Your task to perform on an android device: Open Youtube and go to "Your channel" Image 0: 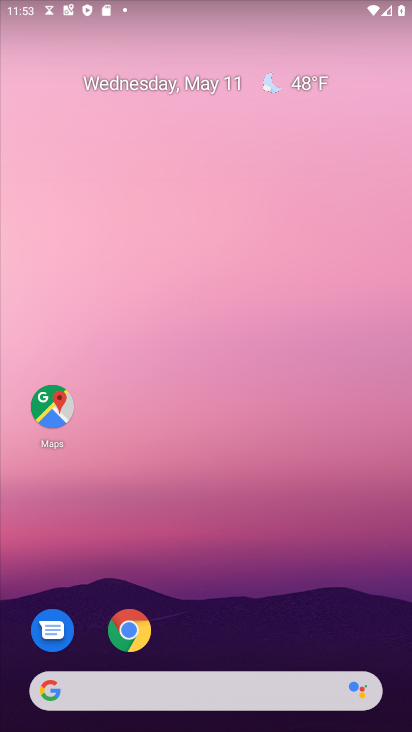
Step 0: drag from (219, 725) to (178, 195)
Your task to perform on an android device: Open Youtube and go to "Your channel" Image 1: 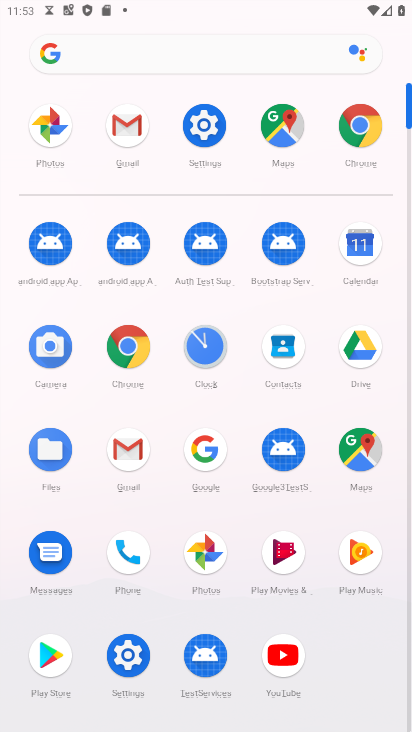
Step 1: click (284, 645)
Your task to perform on an android device: Open Youtube and go to "Your channel" Image 2: 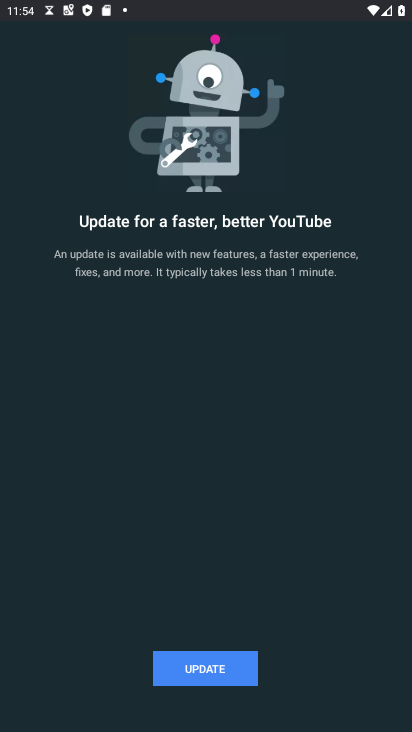
Step 2: task complete